Your task to perform on an android device: Open Chrome and go to settings Image 0: 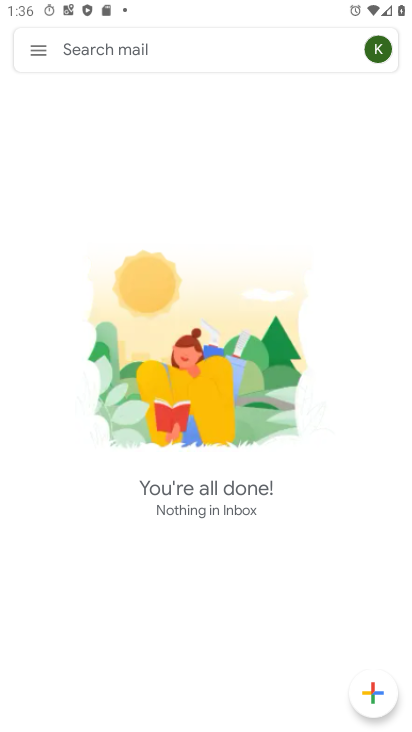
Step 0: press home button
Your task to perform on an android device: Open Chrome and go to settings Image 1: 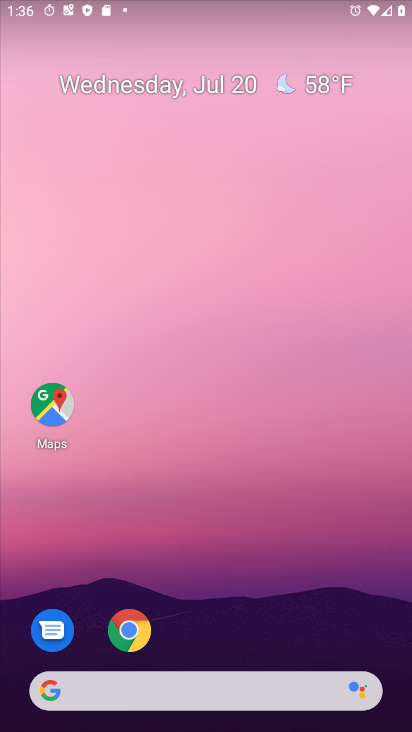
Step 1: click (131, 629)
Your task to perform on an android device: Open Chrome and go to settings Image 2: 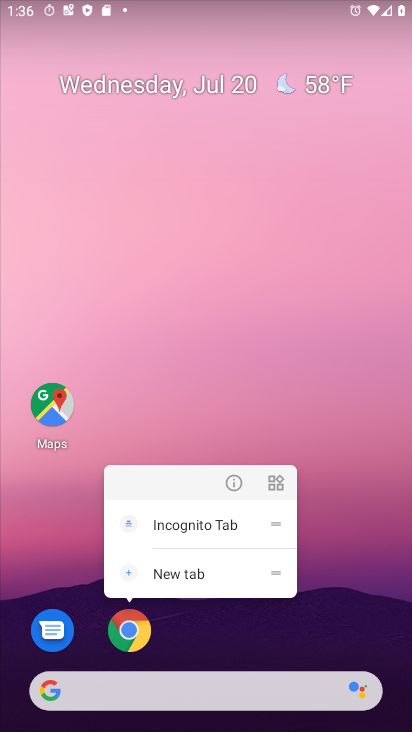
Step 2: click (121, 627)
Your task to perform on an android device: Open Chrome and go to settings Image 3: 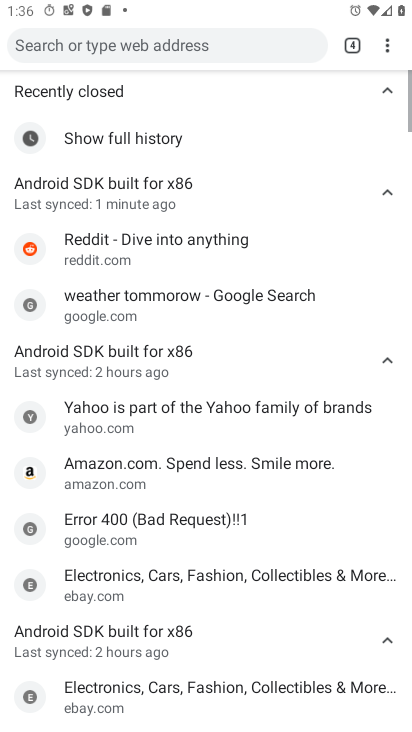
Step 3: task complete